Your task to perform on an android device: What is the news today? Image 0: 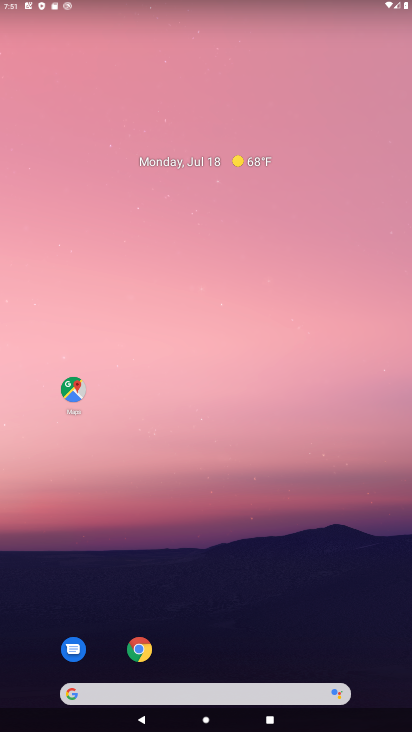
Step 0: click (227, 697)
Your task to perform on an android device: What is the news today? Image 1: 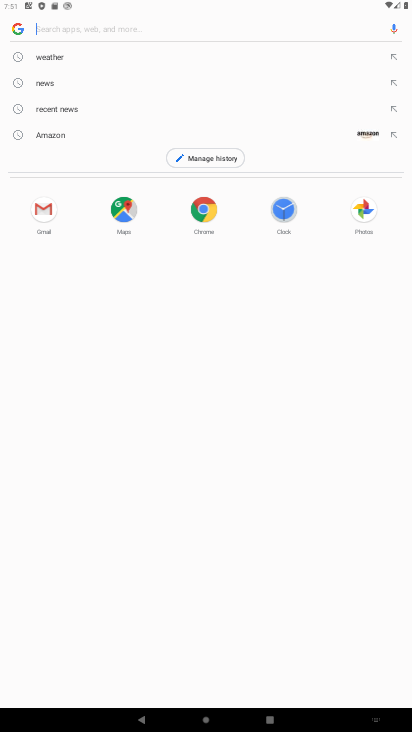
Step 1: type "news todays"
Your task to perform on an android device: What is the news today? Image 2: 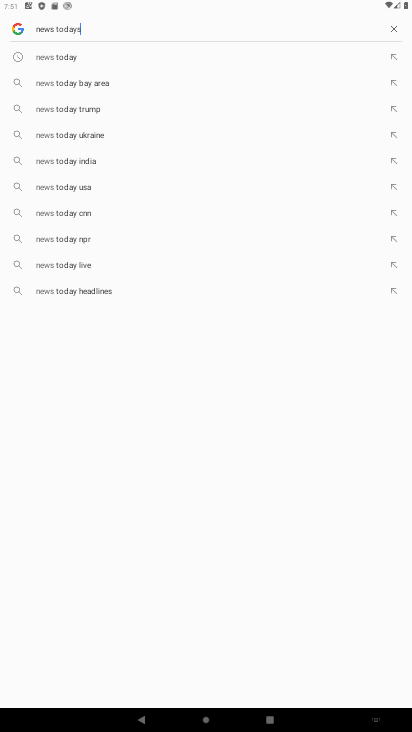
Step 2: click (64, 55)
Your task to perform on an android device: What is the news today? Image 3: 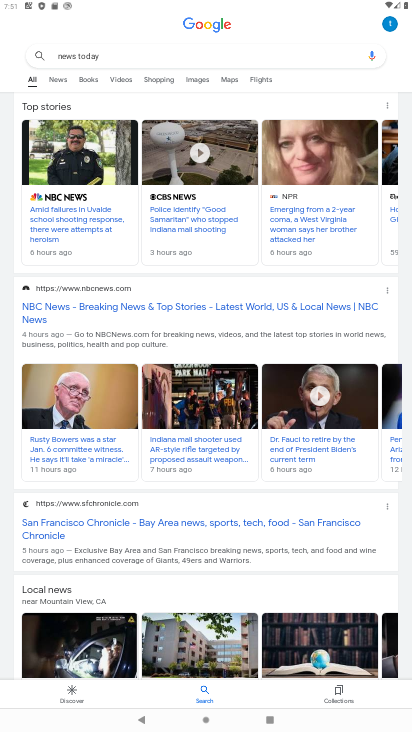
Step 3: task complete